Your task to perform on an android device: stop showing notifications on the lock screen Image 0: 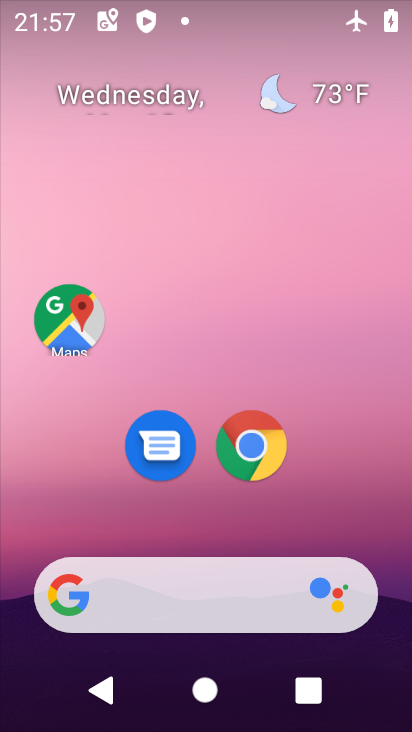
Step 0: drag from (319, 420) to (312, 145)
Your task to perform on an android device: stop showing notifications on the lock screen Image 1: 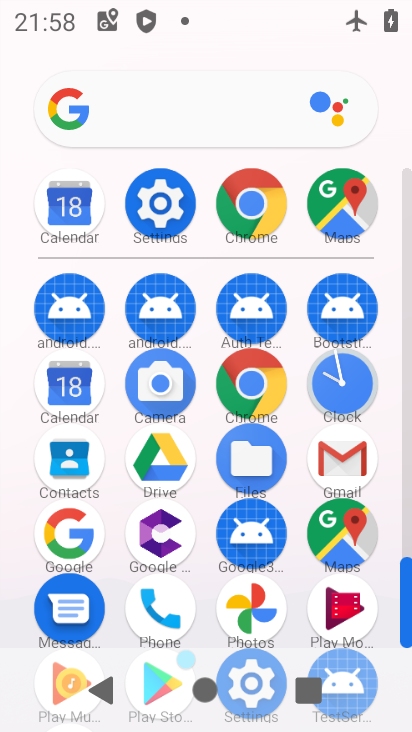
Step 1: click (149, 189)
Your task to perform on an android device: stop showing notifications on the lock screen Image 2: 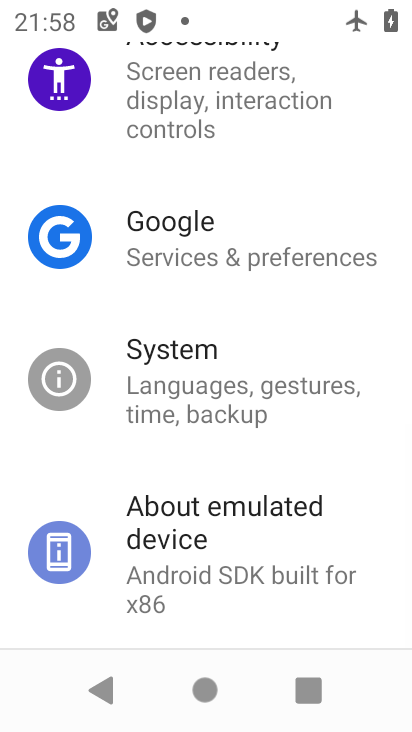
Step 2: drag from (221, 169) to (192, 556)
Your task to perform on an android device: stop showing notifications on the lock screen Image 3: 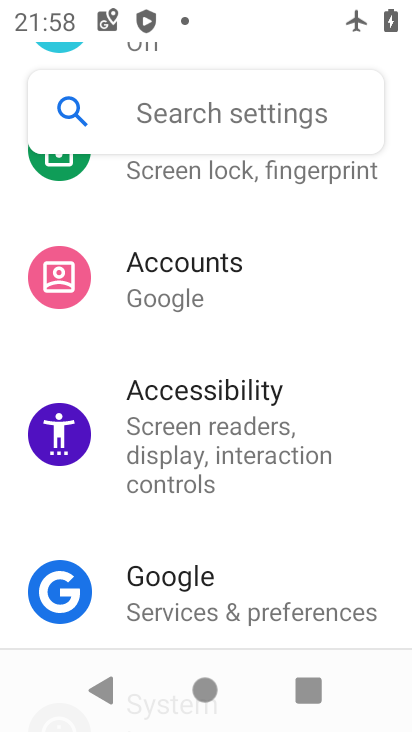
Step 3: drag from (198, 269) to (200, 611)
Your task to perform on an android device: stop showing notifications on the lock screen Image 4: 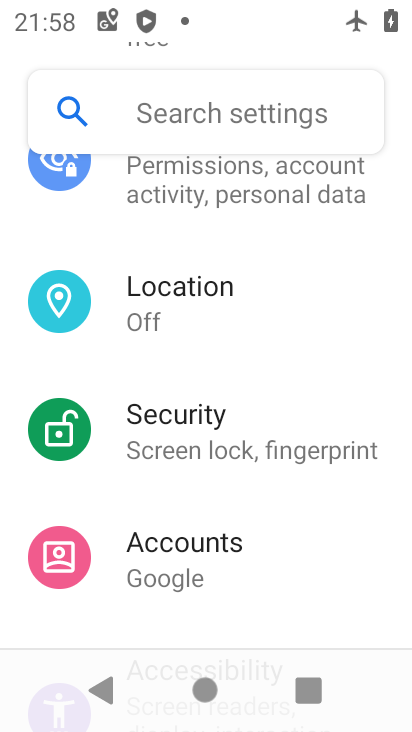
Step 4: drag from (221, 252) to (218, 663)
Your task to perform on an android device: stop showing notifications on the lock screen Image 5: 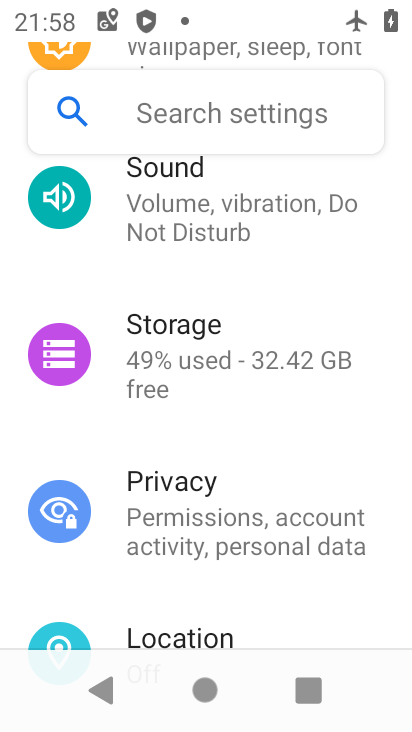
Step 5: drag from (218, 345) to (220, 597)
Your task to perform on an android device: stop showing notifications on the lock screen Image 6: 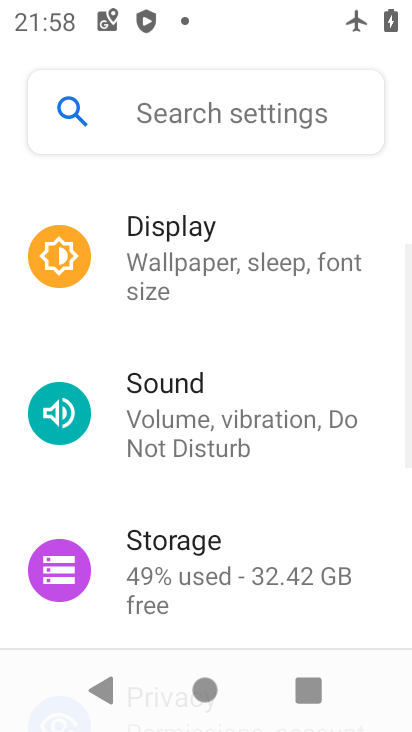
Step 6: drag from (232, 201) to (266, 602)
Your task to perform on an android device: stop showing notifications on the lock screen Image 7: 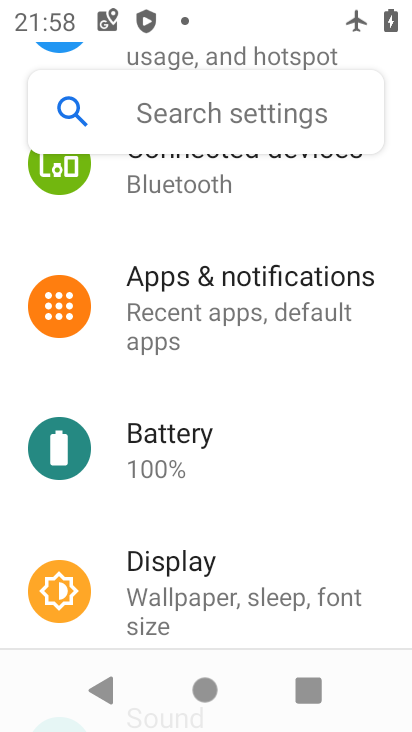
Step 7: click (233, 281)
Your task to perform on an android device: stop showing notifications on the lock screen Image 8: 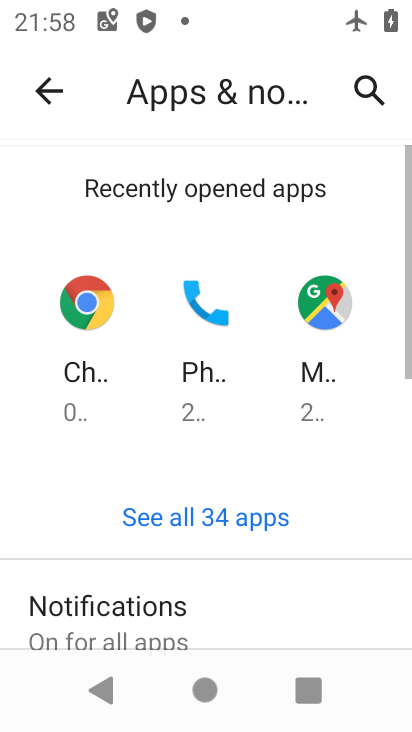
Step 8: drag from (186, 606) to (249, 289)
Your task to perform on an android device: stop showing notifications on the lock screen Image 9: 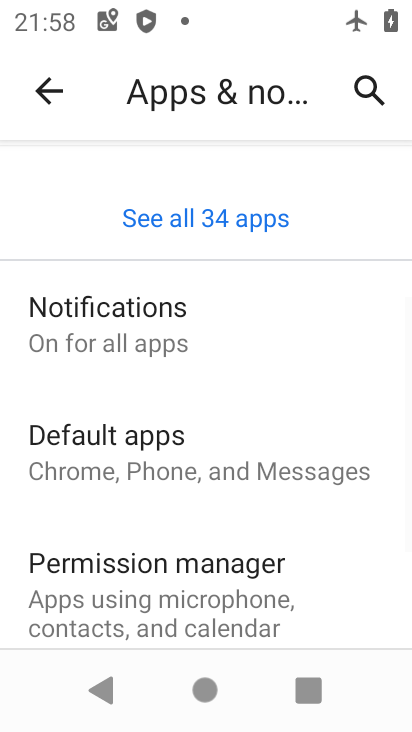
Step 9: click (140, 328)
Your task to perform on an android device: stop showing notifications on the lock screen Image 10: 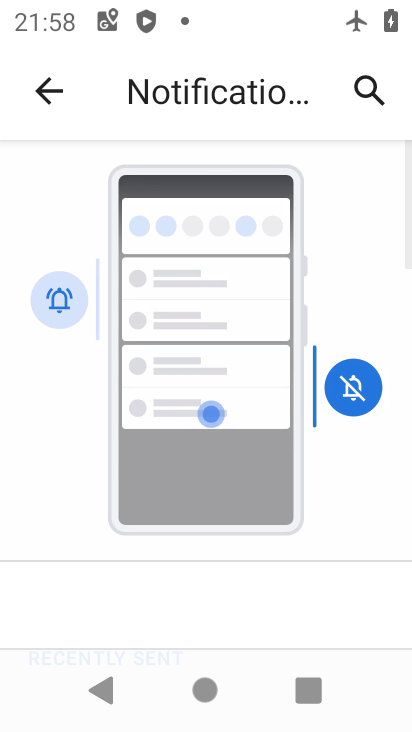
Step 10: drag from (177, 582) to (271, 126)
Your task to perform on an android device: stop showing notifications on the lock screen Image 11: 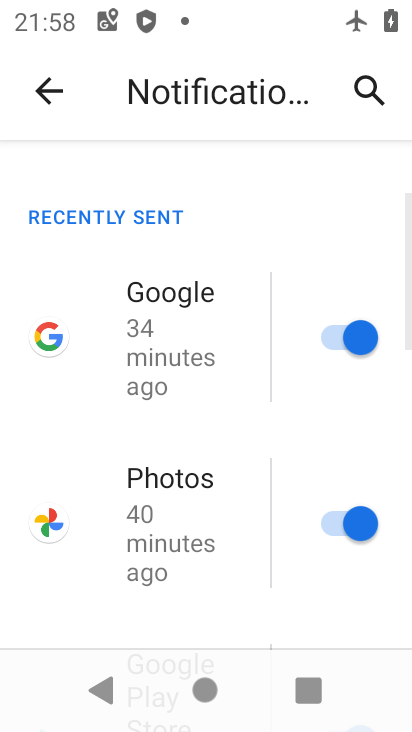
Step 11: drag from (165, 571) to (225, 187)
Your task to perform on an android device: stop showing notifications on the lock screen Image 12: 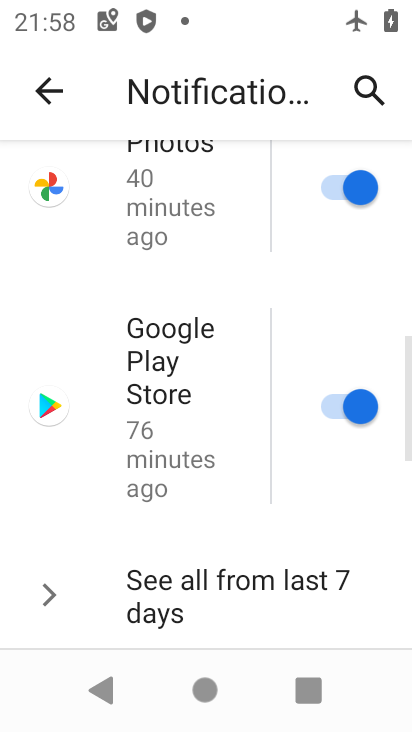
Step 12: drag from (200, 578) to (216, 145)
Your task to perform on an android device: stop showing notifications on the lock screen Image 13: 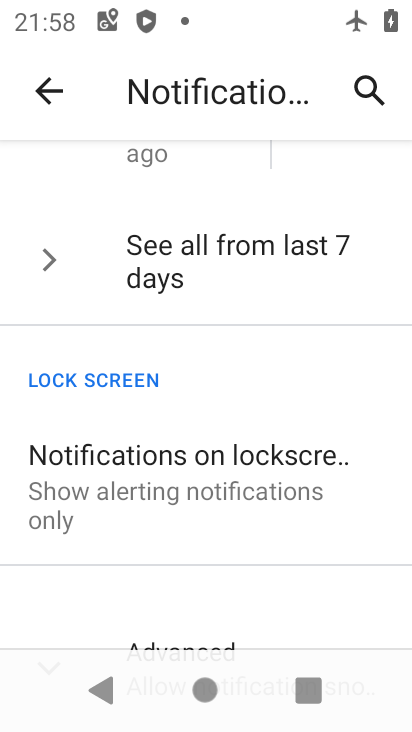
Step 13: drag from (173, 566) to (217, 308)
Your task to perform on an android device: stop showing notifications on the lock screen Image 14: 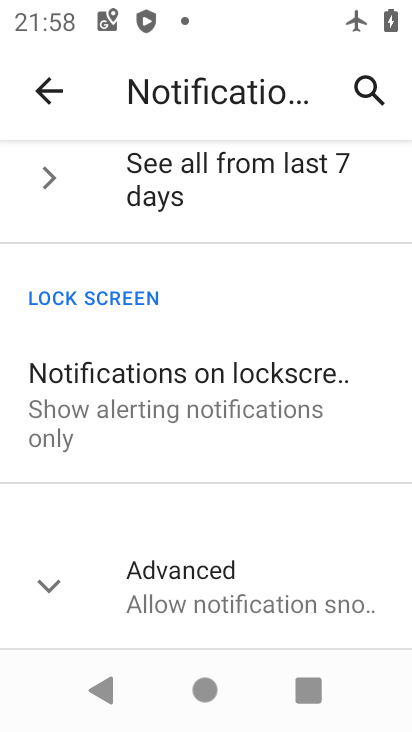
Step 14: click (147, 434)
Your task to perform on an android device: stop showing notifications on the lock screen Image 15: 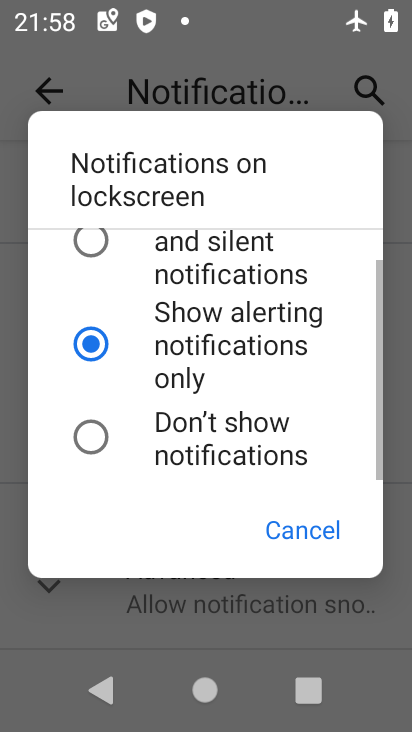
Step 15: click (83, 428)
Your task to perform on an android device: stop showing notifications on the lock screen Image 16: 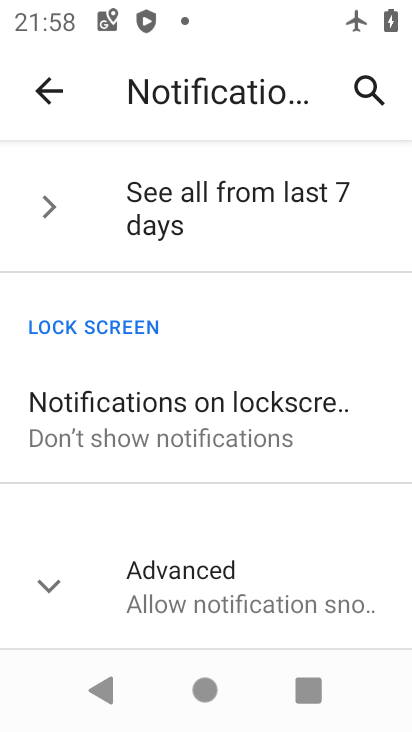
Step 16: click (158, 412)
Your task to perform on an android device: stop showing notifications on the lock screen Image 17: 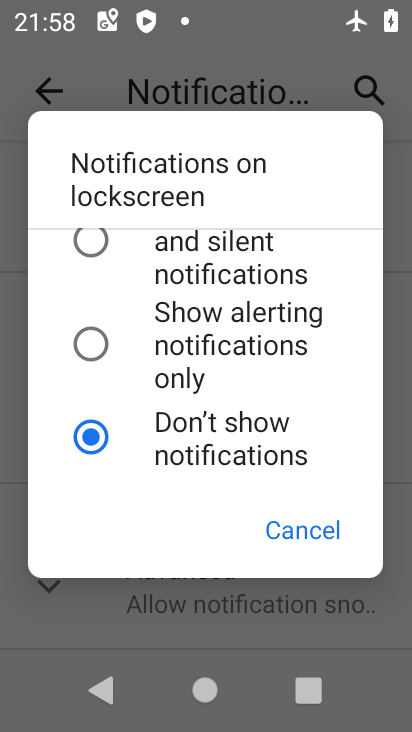
Step 17: task complete